Your task to perform on an android device: Open Youtube and go to the subscriptions tab Image 0: 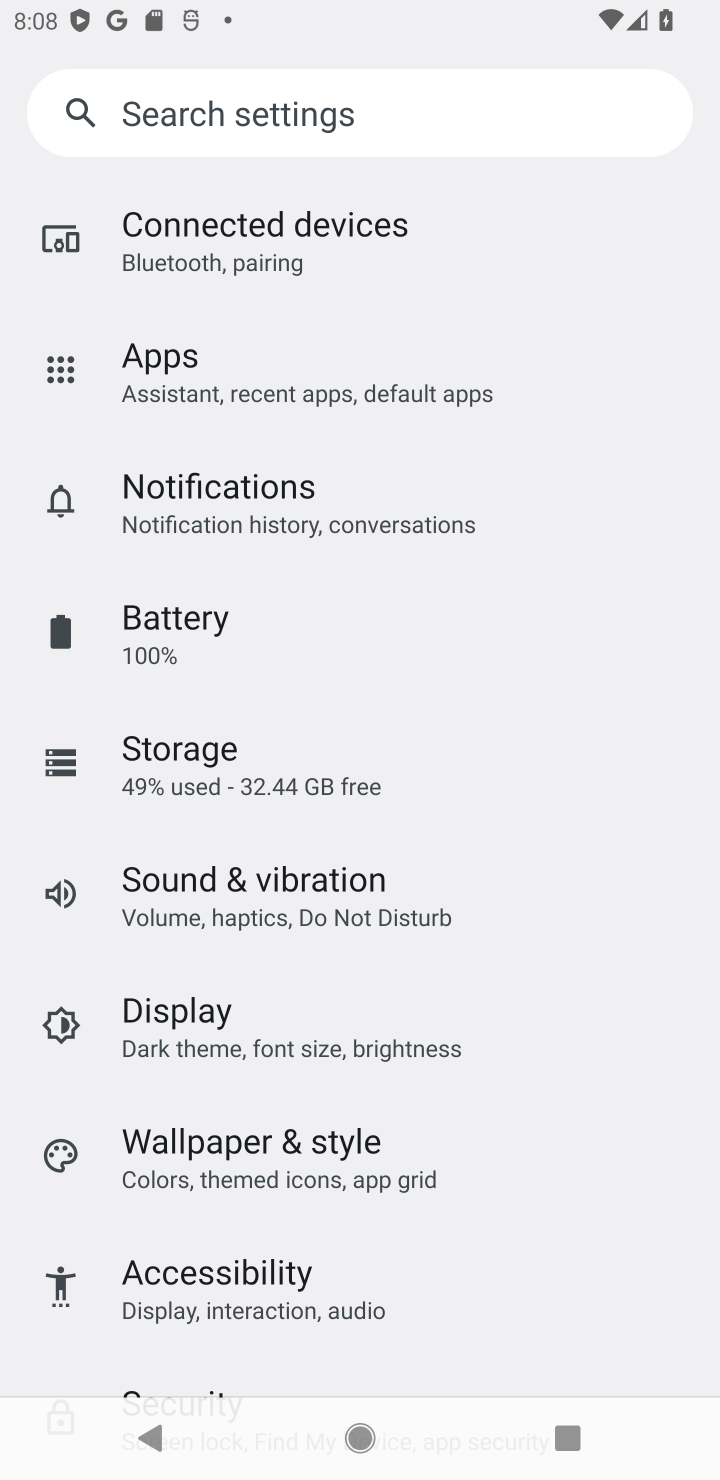
Step 0: press home button
Your task to perform on an android device: Open Youtube and go to the subscriptions tab Image 1: 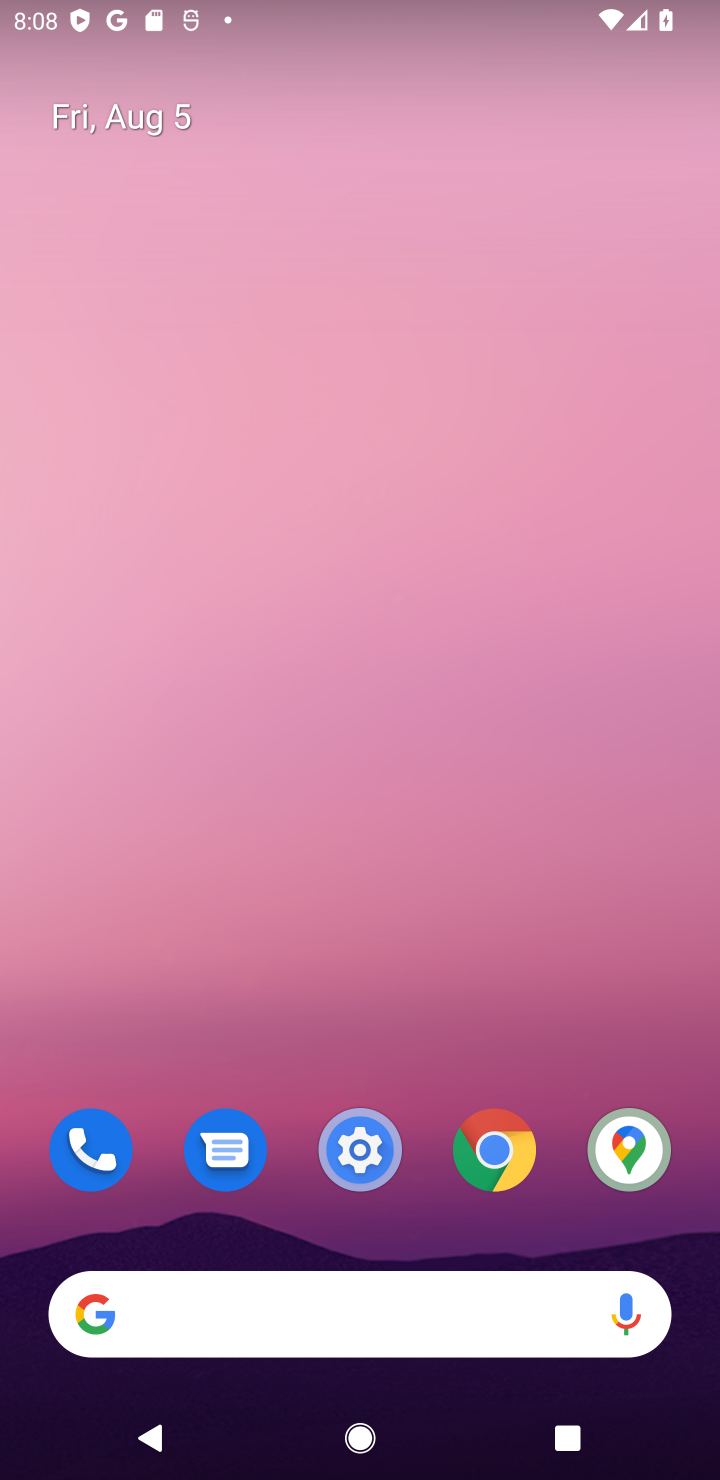
Step 1: drag from (286, 1086) to (338, 382)
Your task to perform on an android device: Open Youtube and go to the subscriptions tab Image 2: 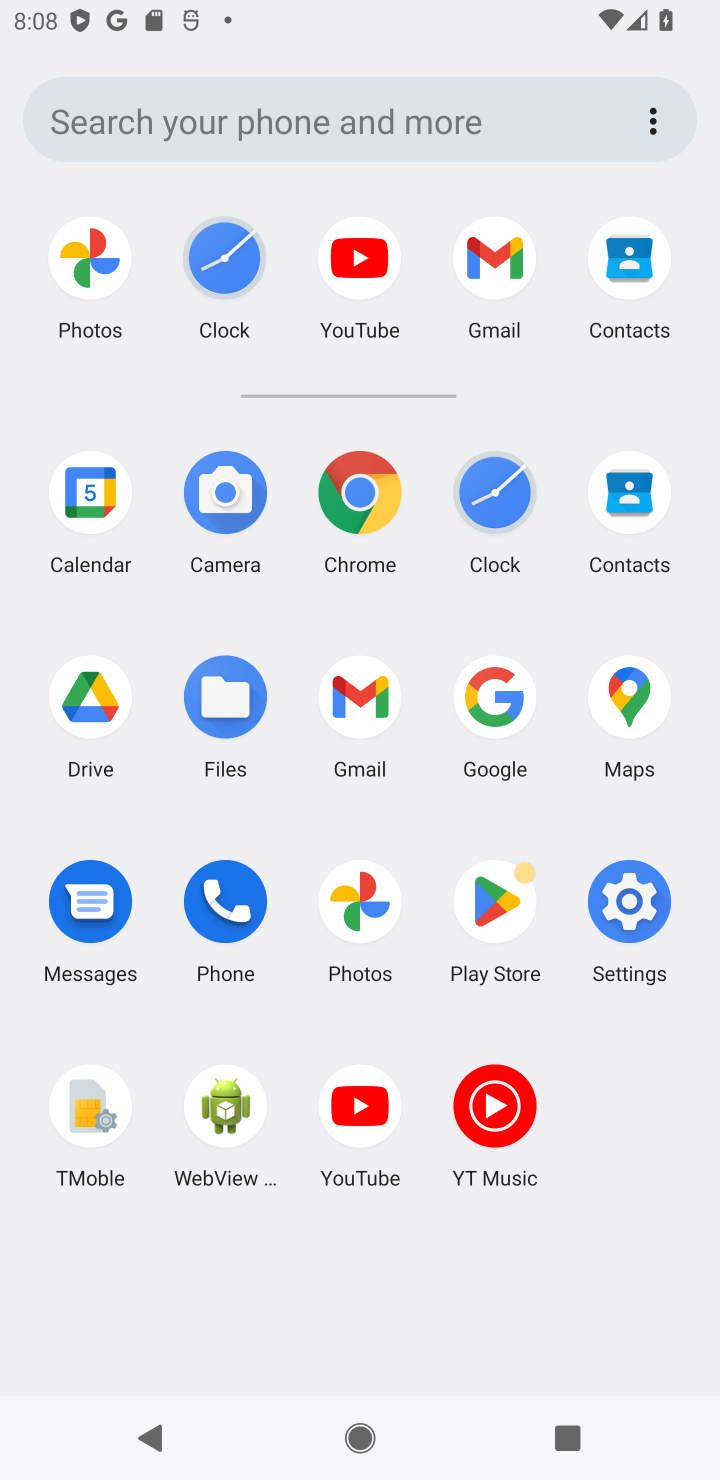
Step 2: click (345, 1103)
Your task to perform on an android device: Open Youtube and go to the subscriptions tab Image 3: 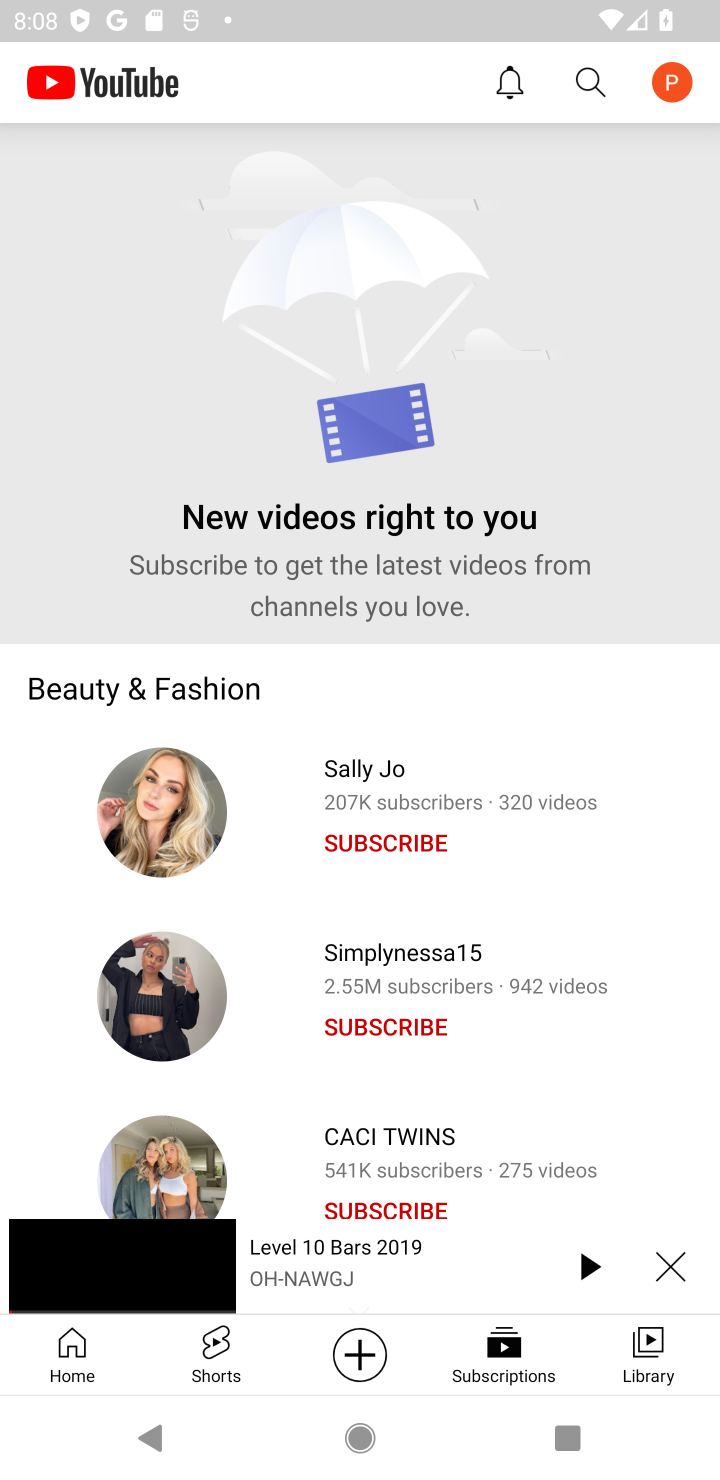
Step 3: task complete